Your task to perform on an android device: Go to Maps Image 0: 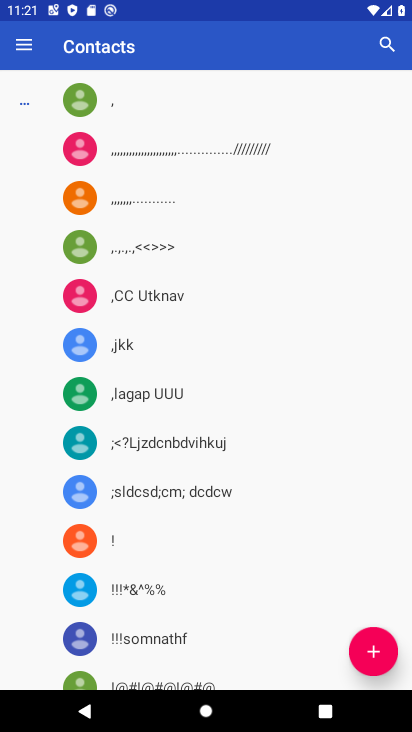
Step 0: press home button
Your task to perform on an android device: Go to Maps Image 1: 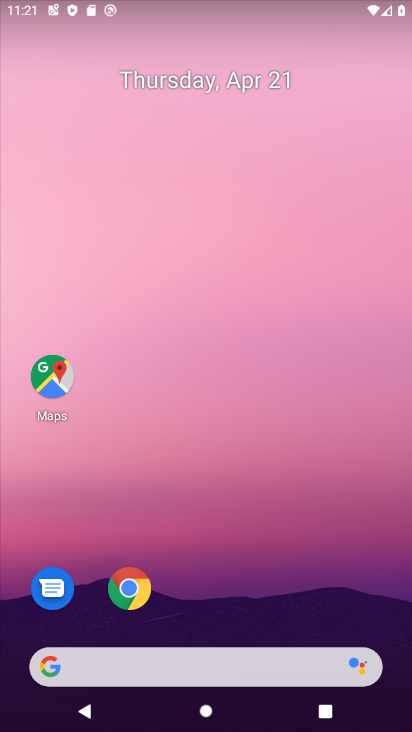
Step 1: click (42, 370)
Your task to perform on an android device: Go to Maps Image 2: 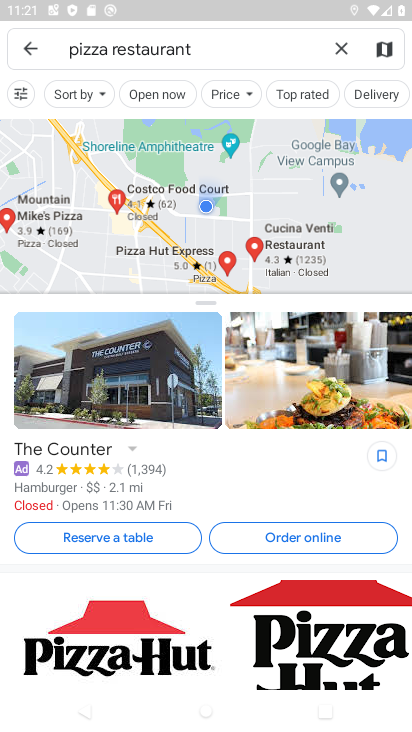
Step 2: task complete